Your task to perform on an android device: turn on improve location accuracy Image 0: 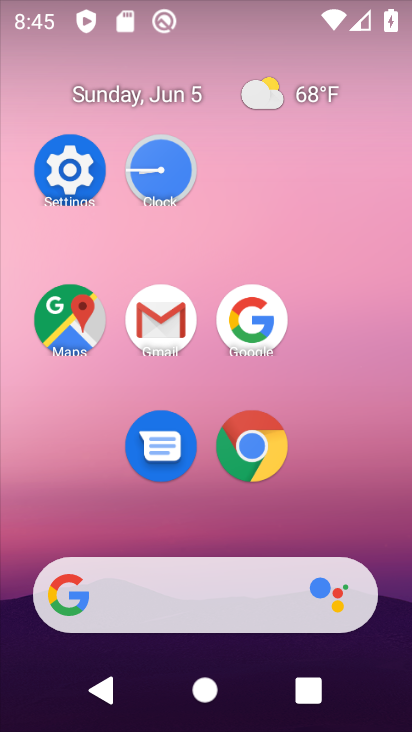
Step 0: click (51, 155)
Your task to perform on an android device: turn on improve location accuracy Image 1: 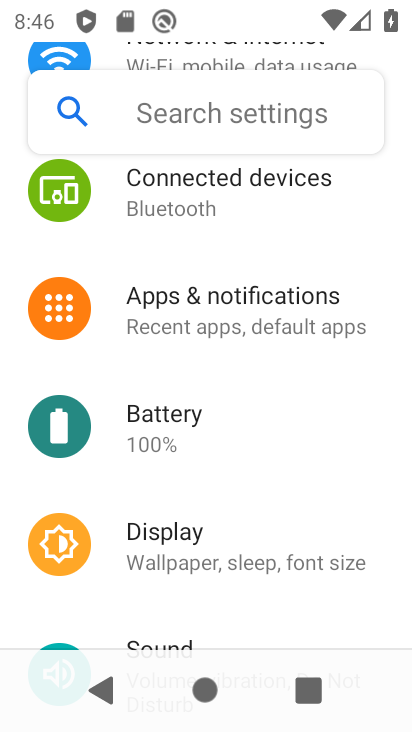
Step 1: drag from (169, 575) to (322, 245)
Your task to perform on an android device: turn on improve location accuracy Image 2: 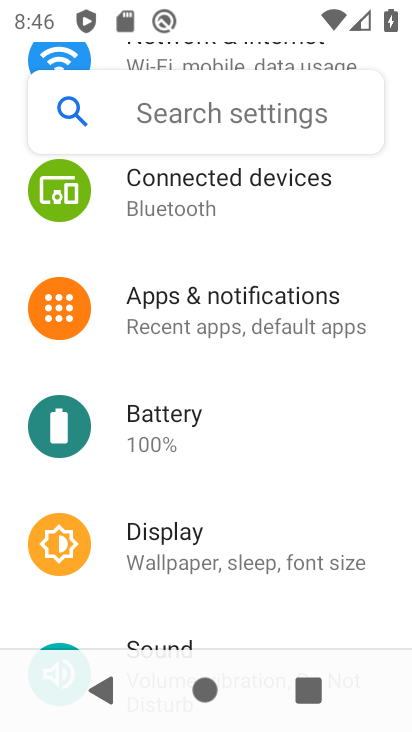
Step 2: drag from (97, 603) to (113, 318)
Your task to perform on an android device: turn on improve location accuracy Image 3: 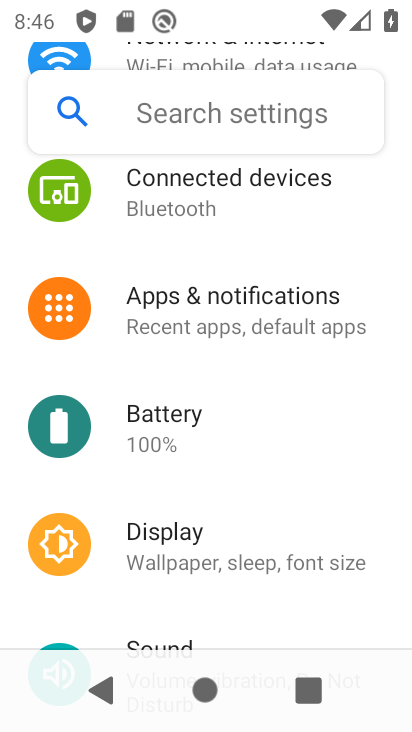
Step 3: drag from (328, 426) to (386, 51)
Your task to perform on an android device: turn on improve location accuracy Image 4: 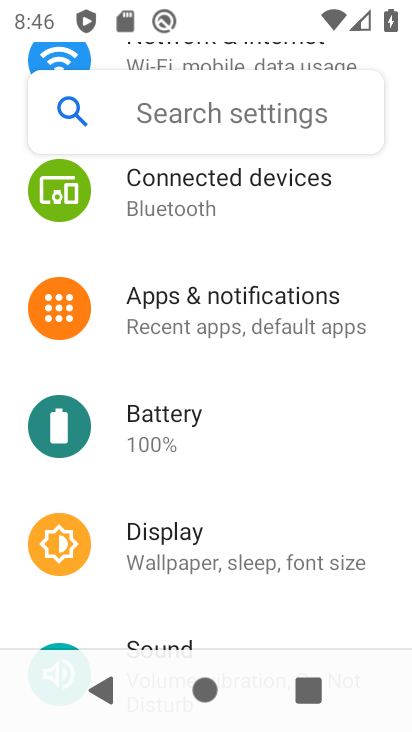
Step 4: drag from (231, 618) to (303, 335)
Your task to perform on an android device: turn on improve location accuracy Image 5: 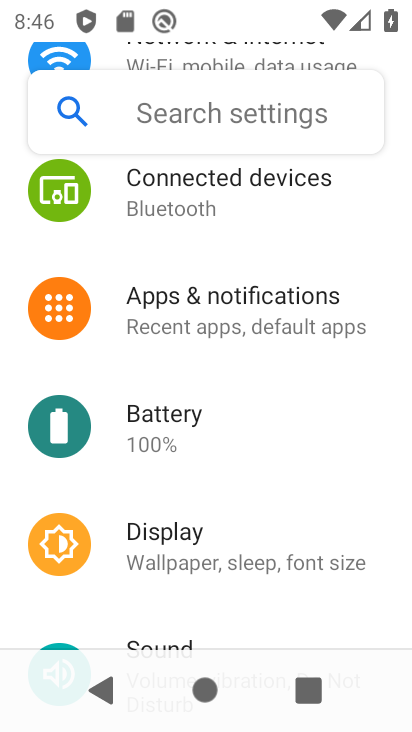
Step 5: drag from (240, 511) to (263, 281)
Your task to perform on an android device: turn on improve location accuracy Image 6: 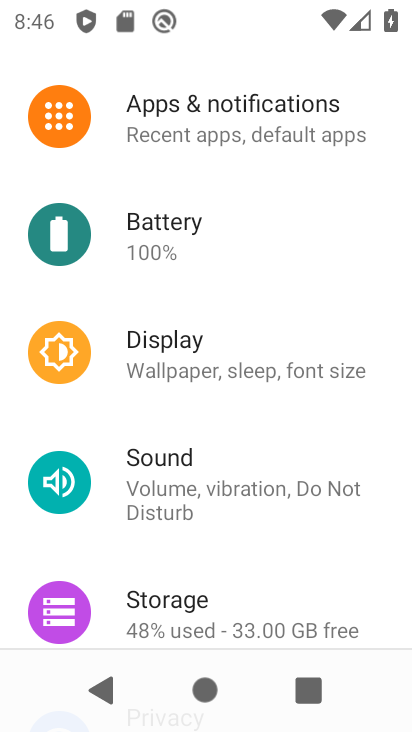
Step 6: drag from (147, 598) to (139, 321)
Your task to perform on an android device: turn on improve location accuracy Image 7: 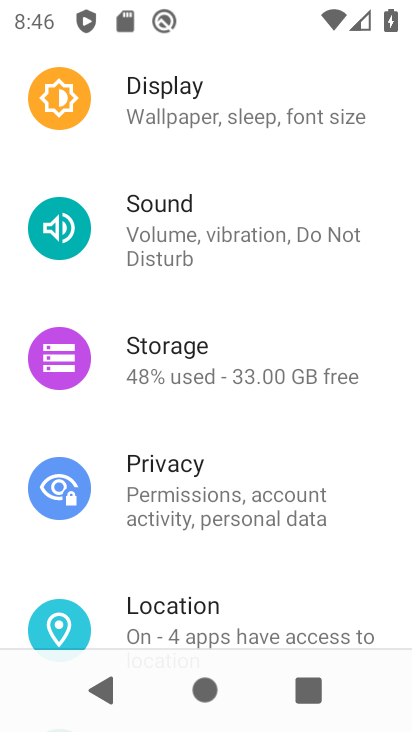
Step 7: click (111, 610)
Your task to perform on an android device: turn on improve location accuracy Image 8: 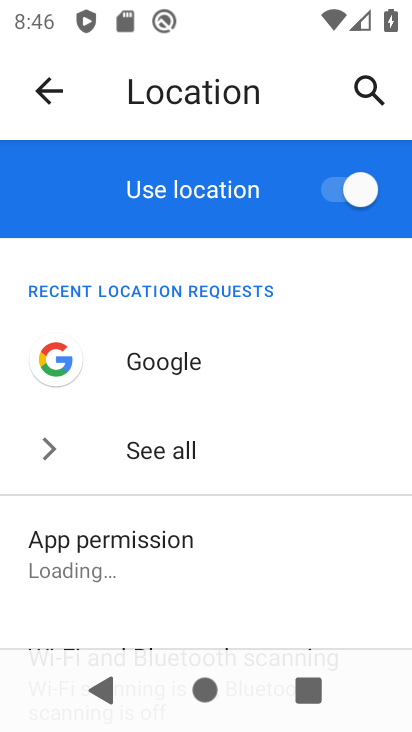
Step 8: drag from (110, 601) to (188, 302)
Your task to perform on an android device: turn on improve location accuracy Image 9: 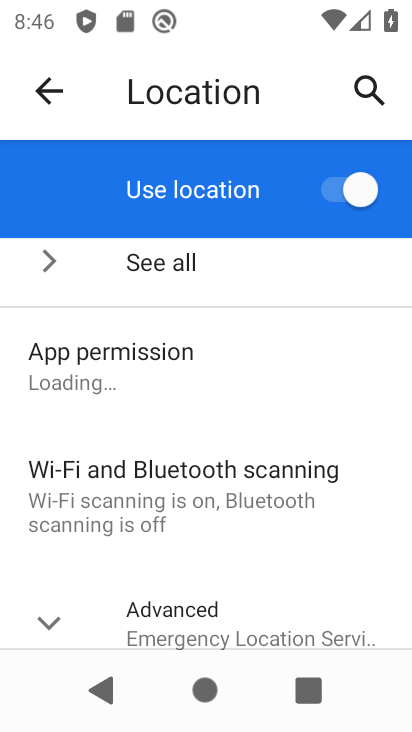
Step 9: click (153, 594)
Your task to perform on an android device: turn on improve location accuracy Image 10: 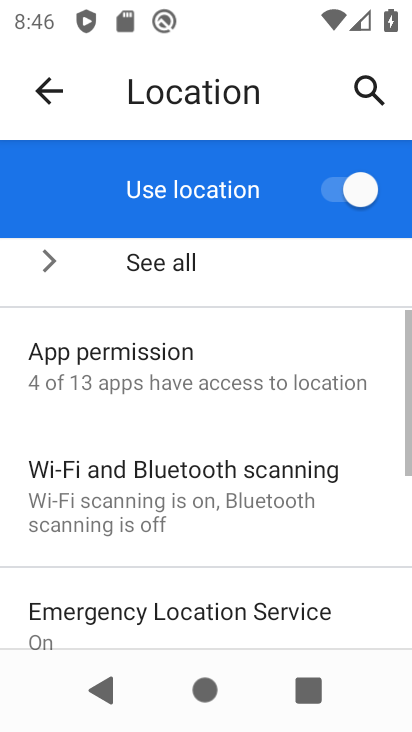
Step 10: drag from (146, 599) to (216, 348)
Your task to perform on an android device: turn on improve location accuracy Image 11: 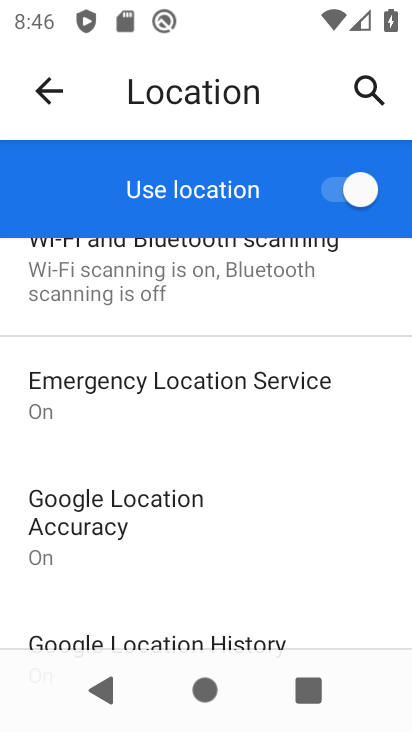
Step 11: click (144, 517)
Your task to perform on an android device: turn on improve location accuracy Image 12: 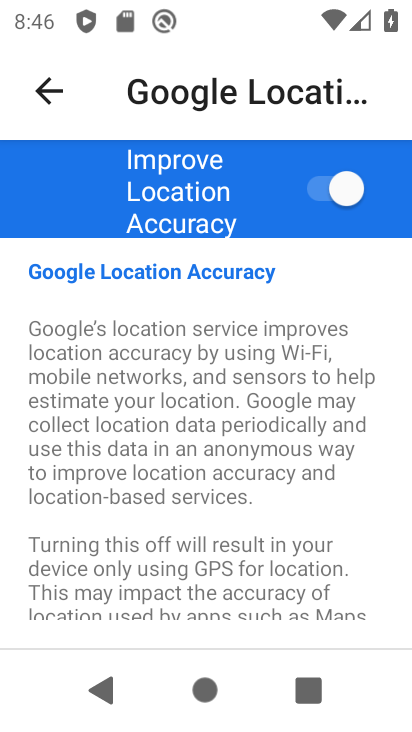
Step 12: task complete